Your task to perform on an android device: toggle priority inbox in the gmail app Image 0: 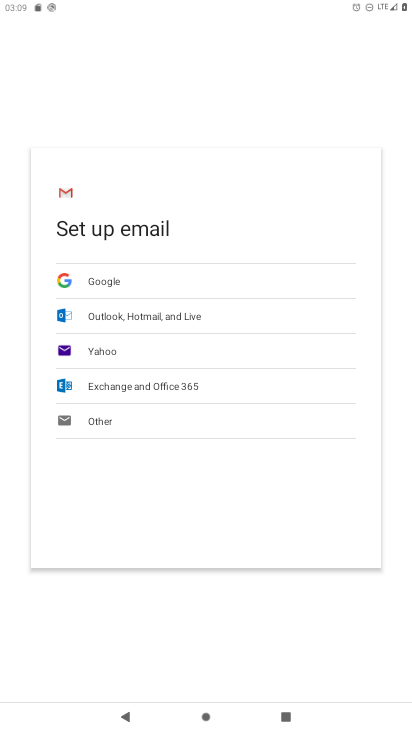
Step 0: press home button
Your task to perform on an android device: toggle priority inbox in the gmail app Image 1: 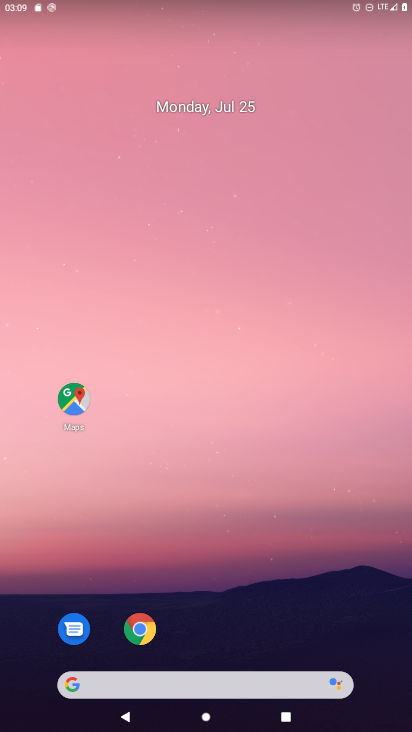
Step 1: drag from (313, 514) to (307, 6)
Your task to perform on an android device: toggle priority inbox in the gmail app Image 2: 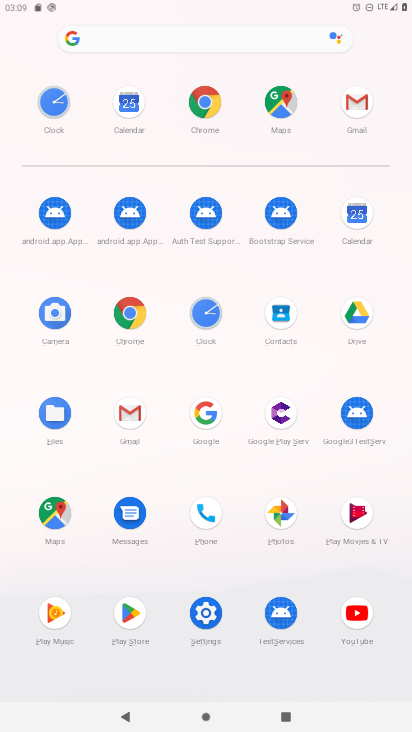
Step 2: click (135, 410)
Your task to perform on an android device: toggle priority inbox in the gmail app Image 3: 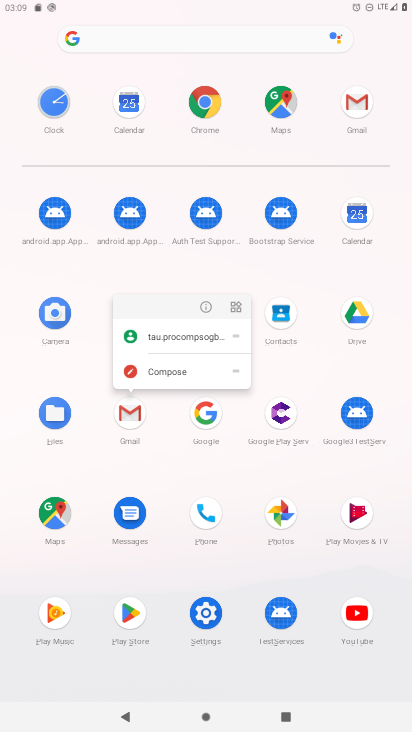
Step 3: click (135, 410)
Your task to perform on an android device: toggle priority inbox in the gmail app Image 4: 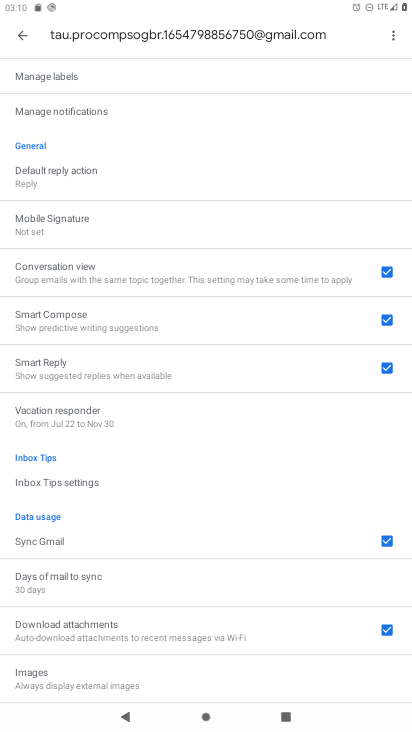
Step 4: drag from (225, 102) to (156, 693)
Your task to perform on an android device: toggle priority inbox in the gmail app Image 5: 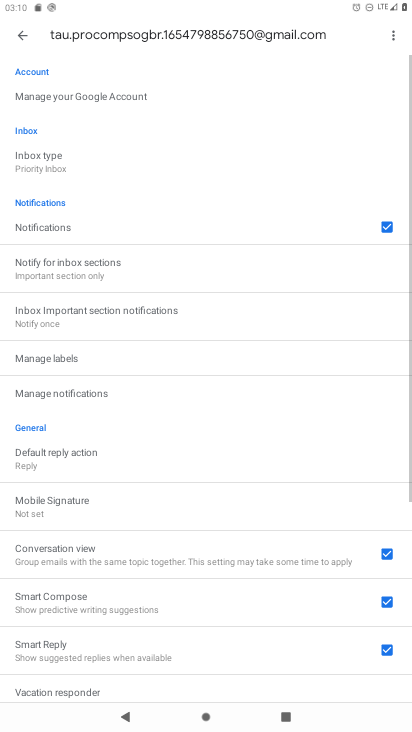
Step 5: click (27, 151)
Your task to perform on an android device: toggle priority inbox in the gmail app Image 6: 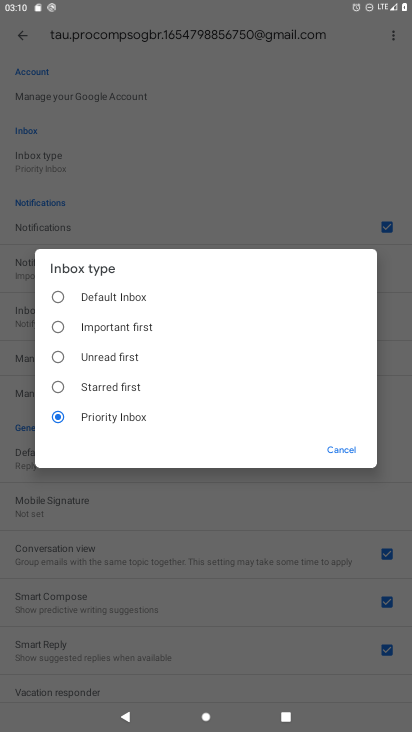
Step 6: click (97, 288)
Your task to perform on an android device: toggle priority inbox in the gmail app Image 7: 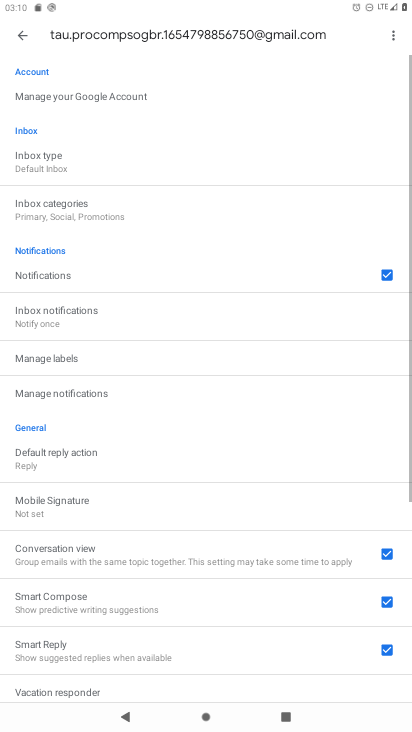
Step 7: task complete